Your task to perform on an android device: turn on sleep mode Image 0: 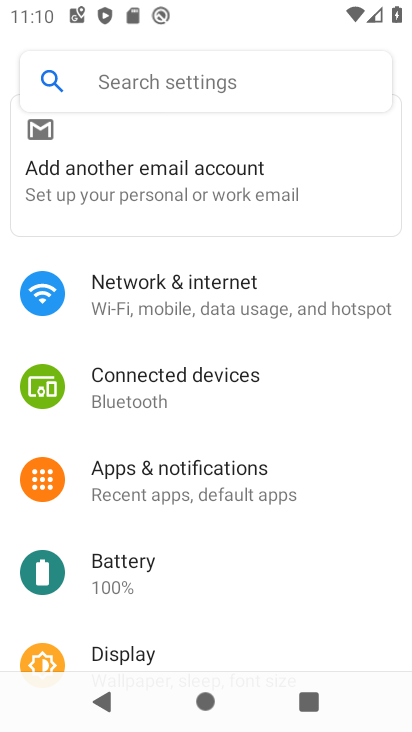
Step 0: drag from (246, 585) to (226, 128)
Your task to perform on an android device: turn on sleep mode Image 1: 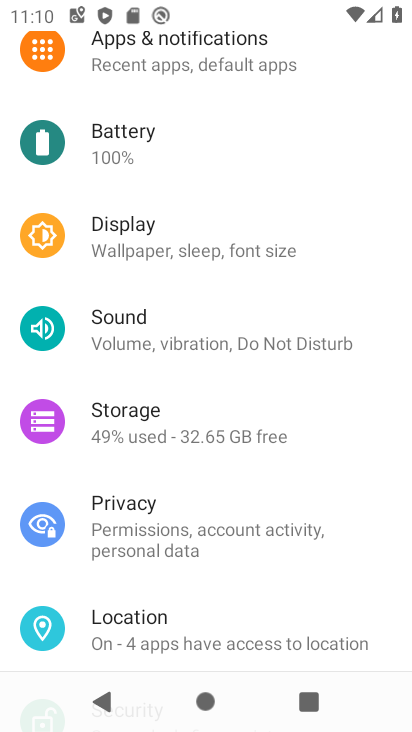
Step 1: click (209, 236)
Your task to perform on an android device: turn on sleep mode Image 2: 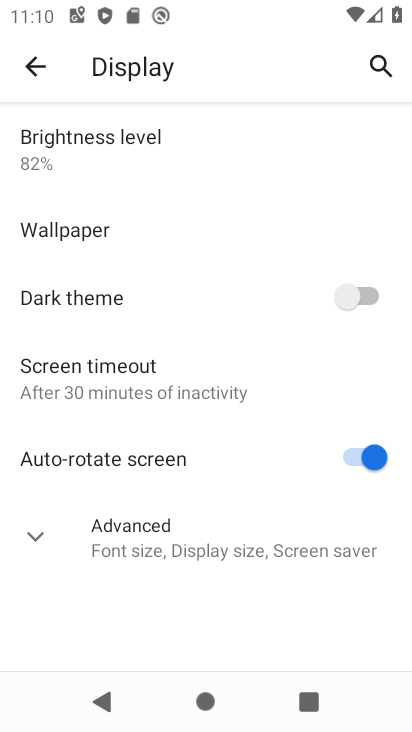
Step 2: click (39, 536)
Your task to perform on an android device: turn on sleep mode Image 3: 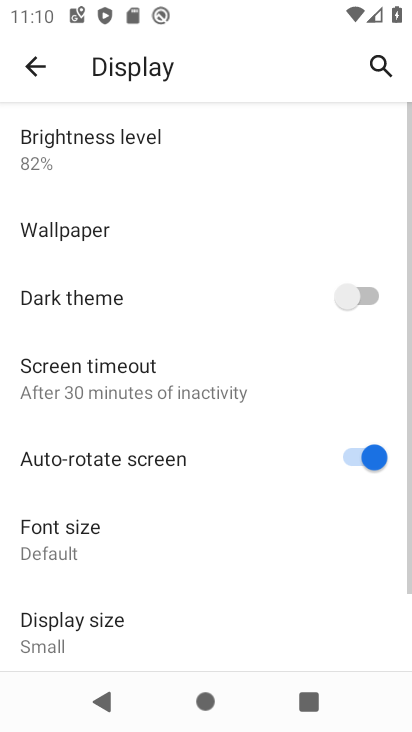
Step 3: task complete